Your task to perform on an android device: What's the news in Argentina? Image 0: 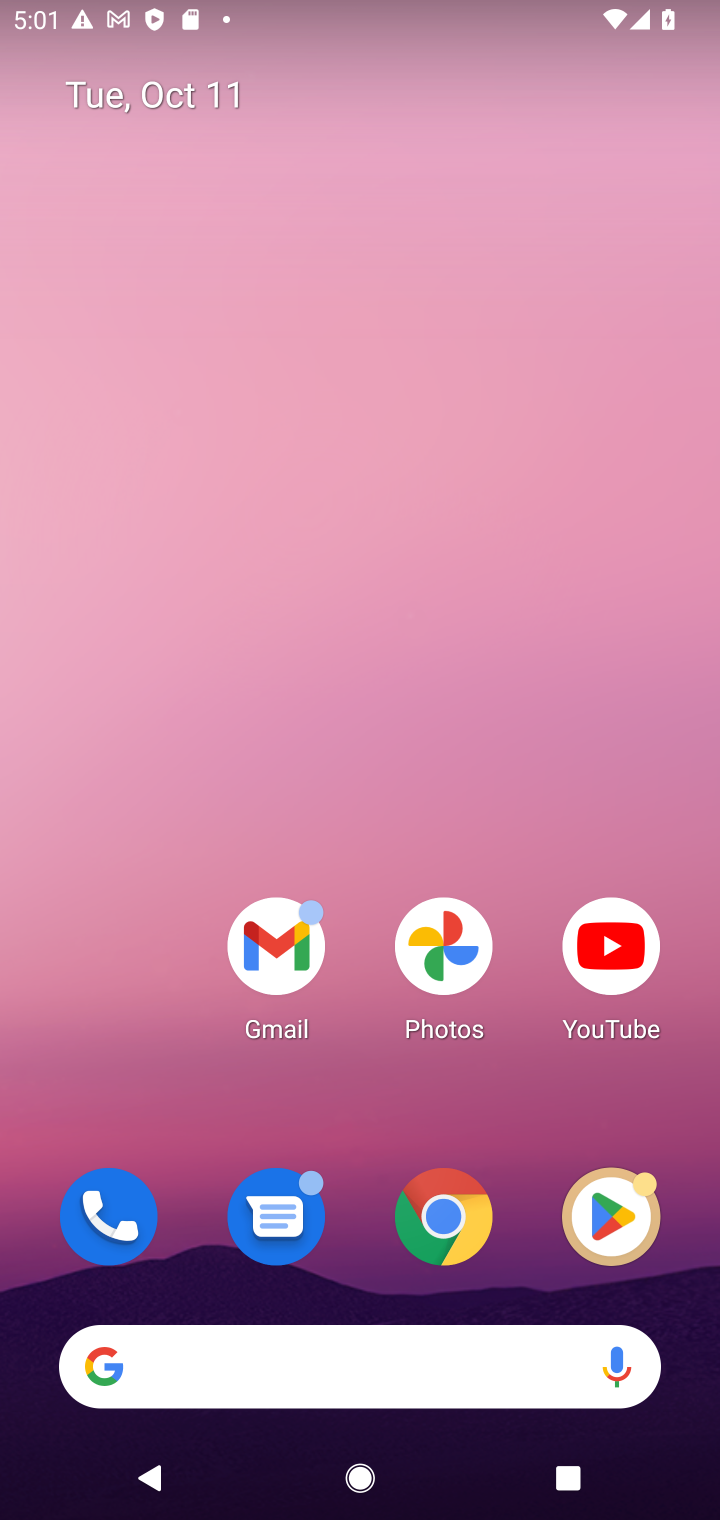
Step 0: click (447, 1214)
Your task to perform on an android device: What's the news in Argentina? Image 1: 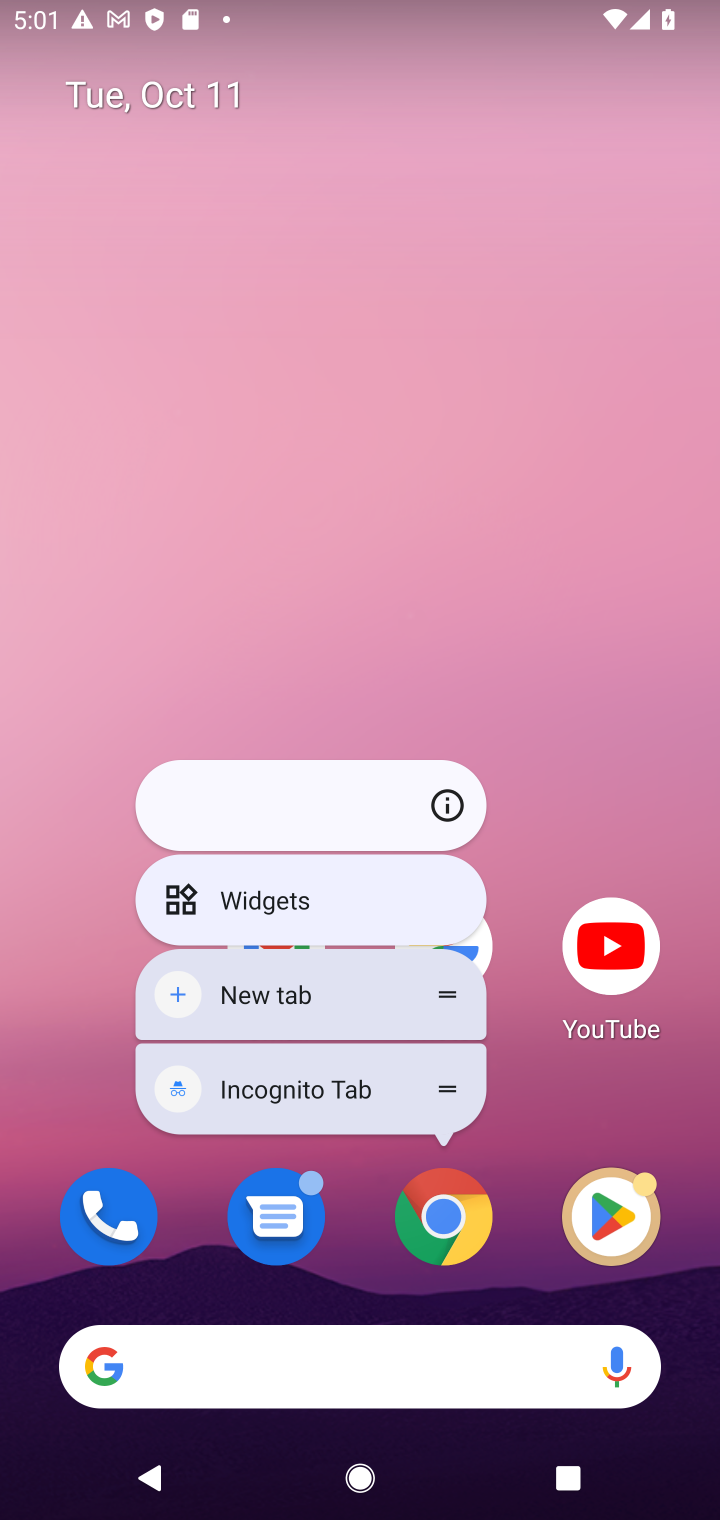
Step 1: click (447, 1214)
Your task to perform on an android device: What's the news in Argentina? Image 2: 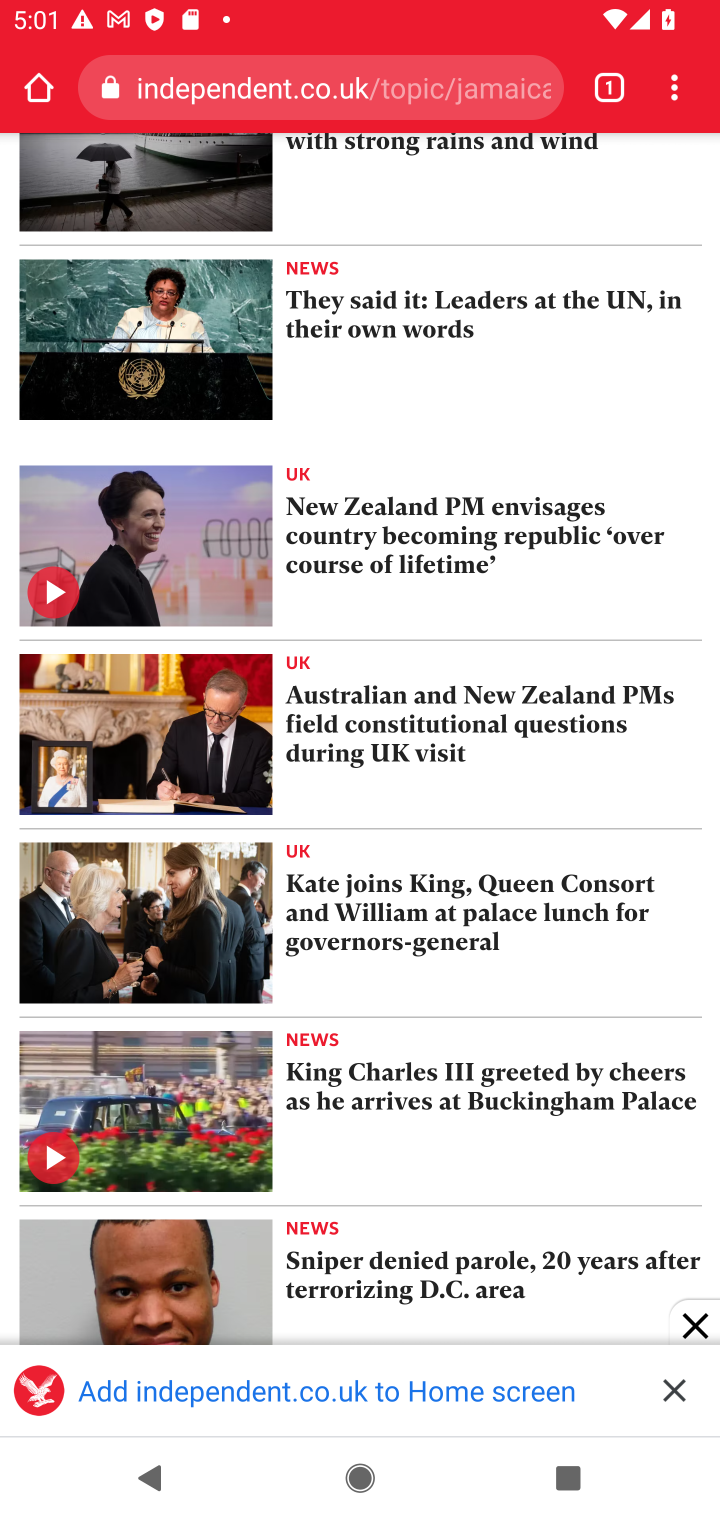
Step 2: click (394, 97)
Your task to perform on an android device: What's the news in Argentina? Image 3: 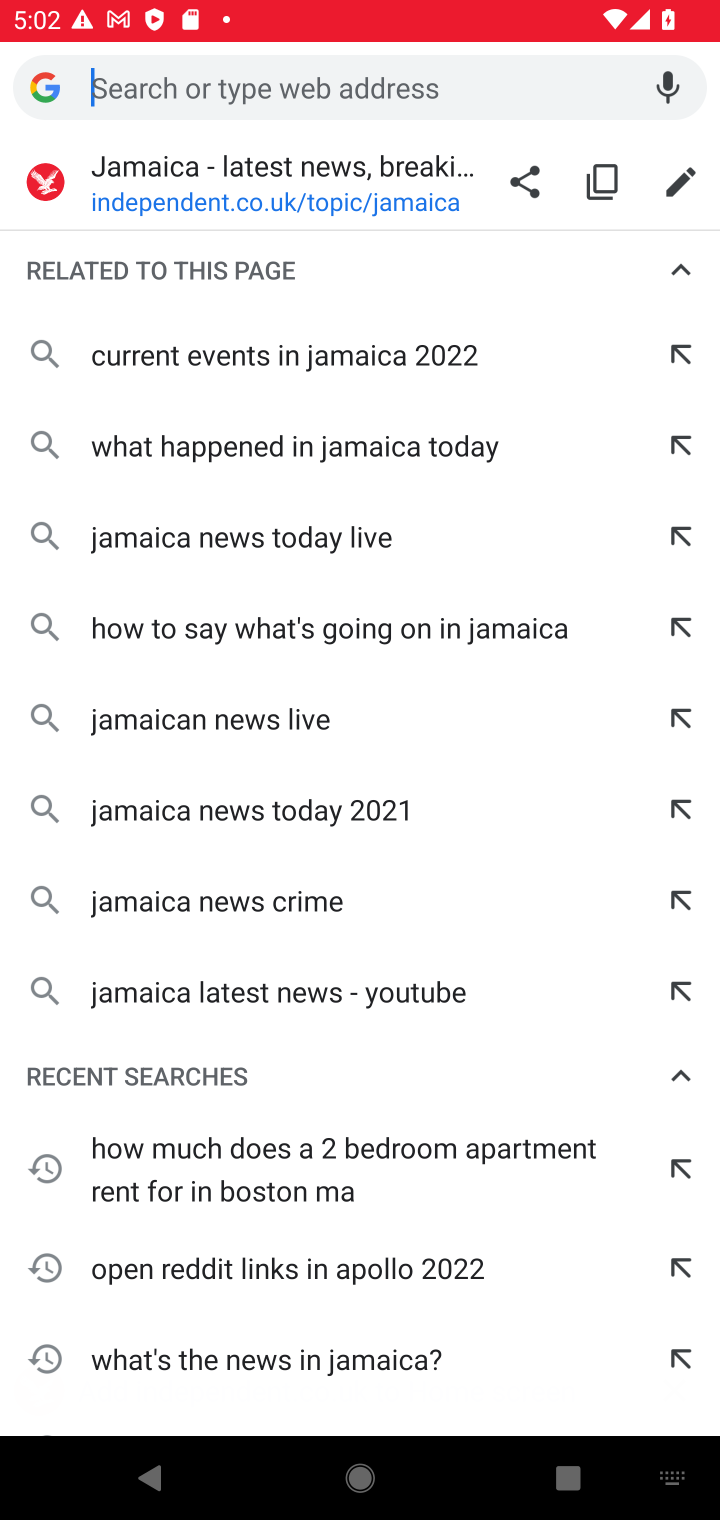
Step 3: type "What's the news in Argentina?"
Your task to perform on an android device: What's the news in Argentina? Image 4: 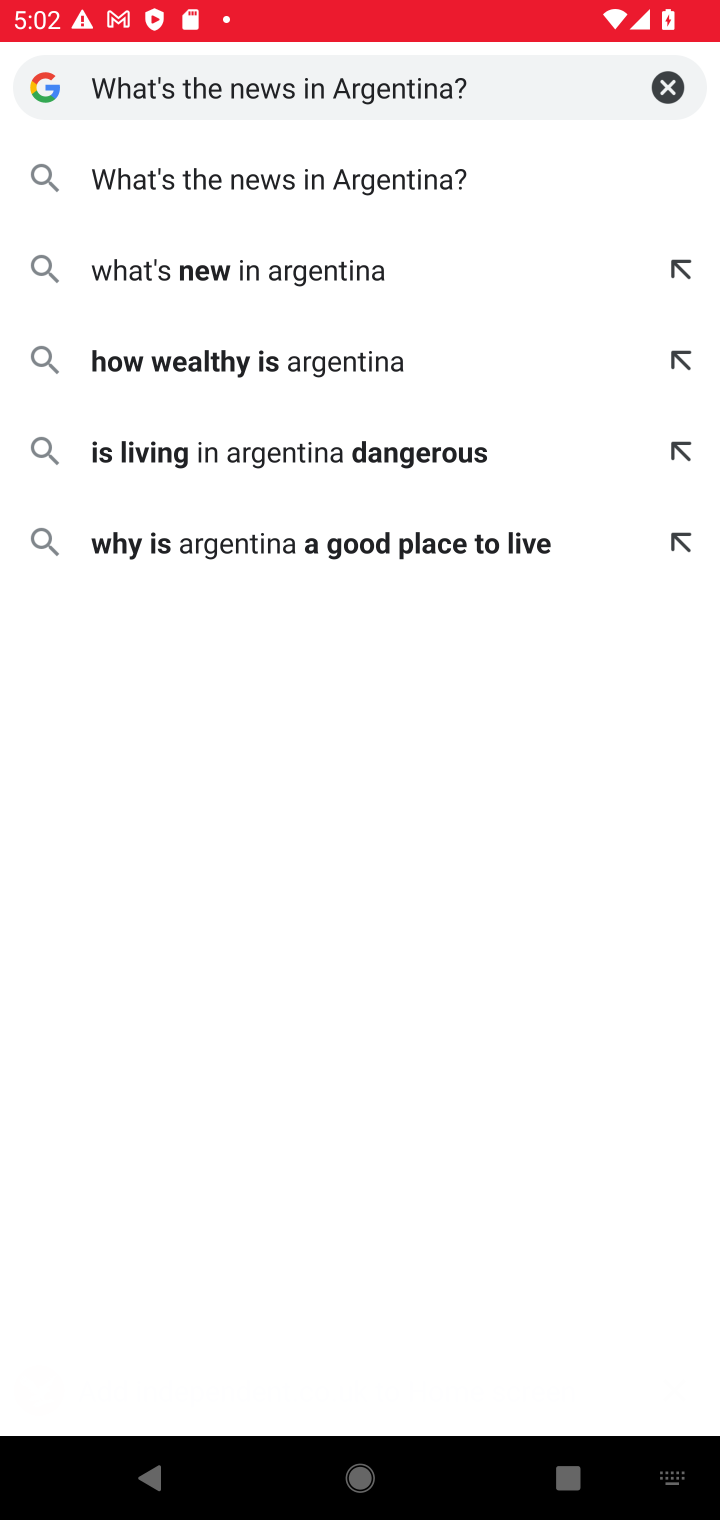
Step 4: click (290, 178)
Your task to perform on an android device: What's the news in Argentina? Image 5: 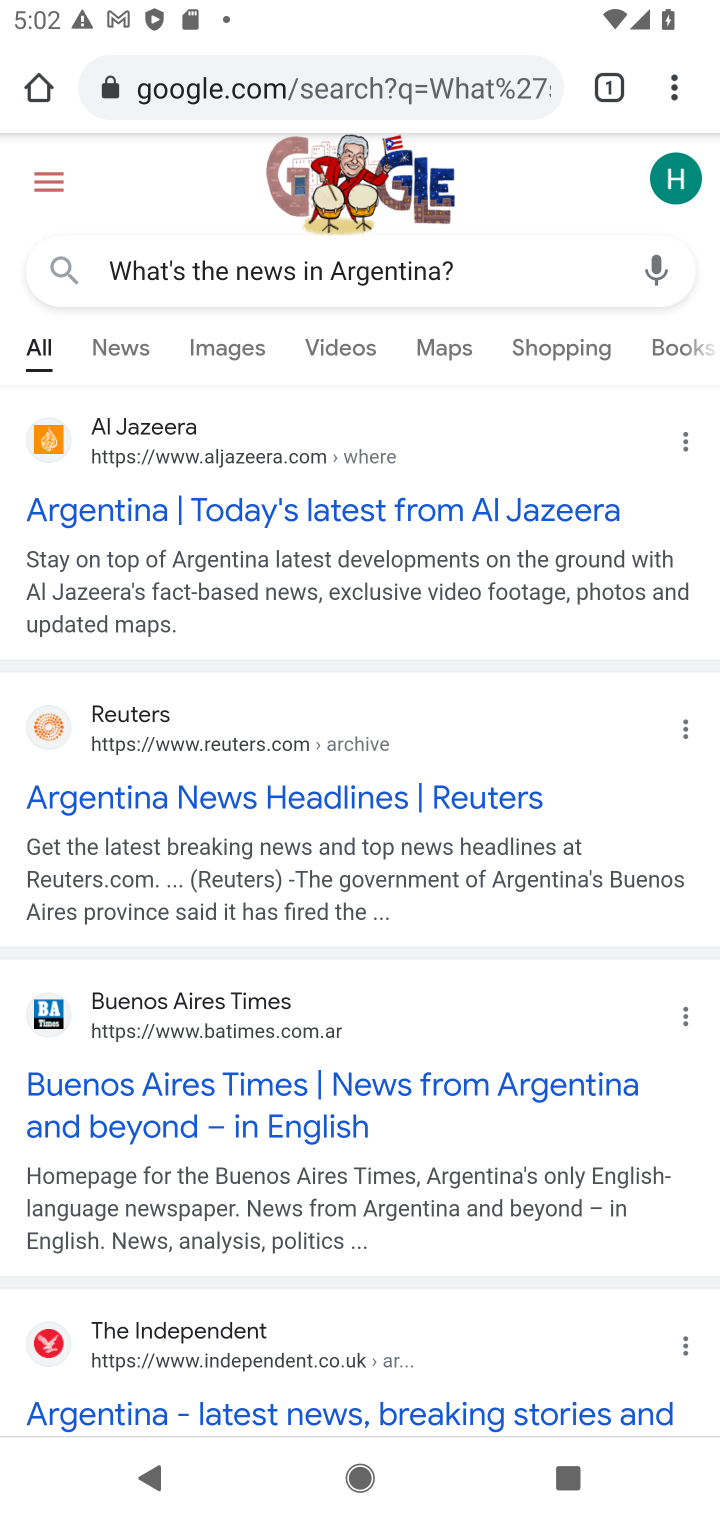
Step 5: click (151, 448)
Your task to perform on an android device: What's the news in Argentina? Image 6: 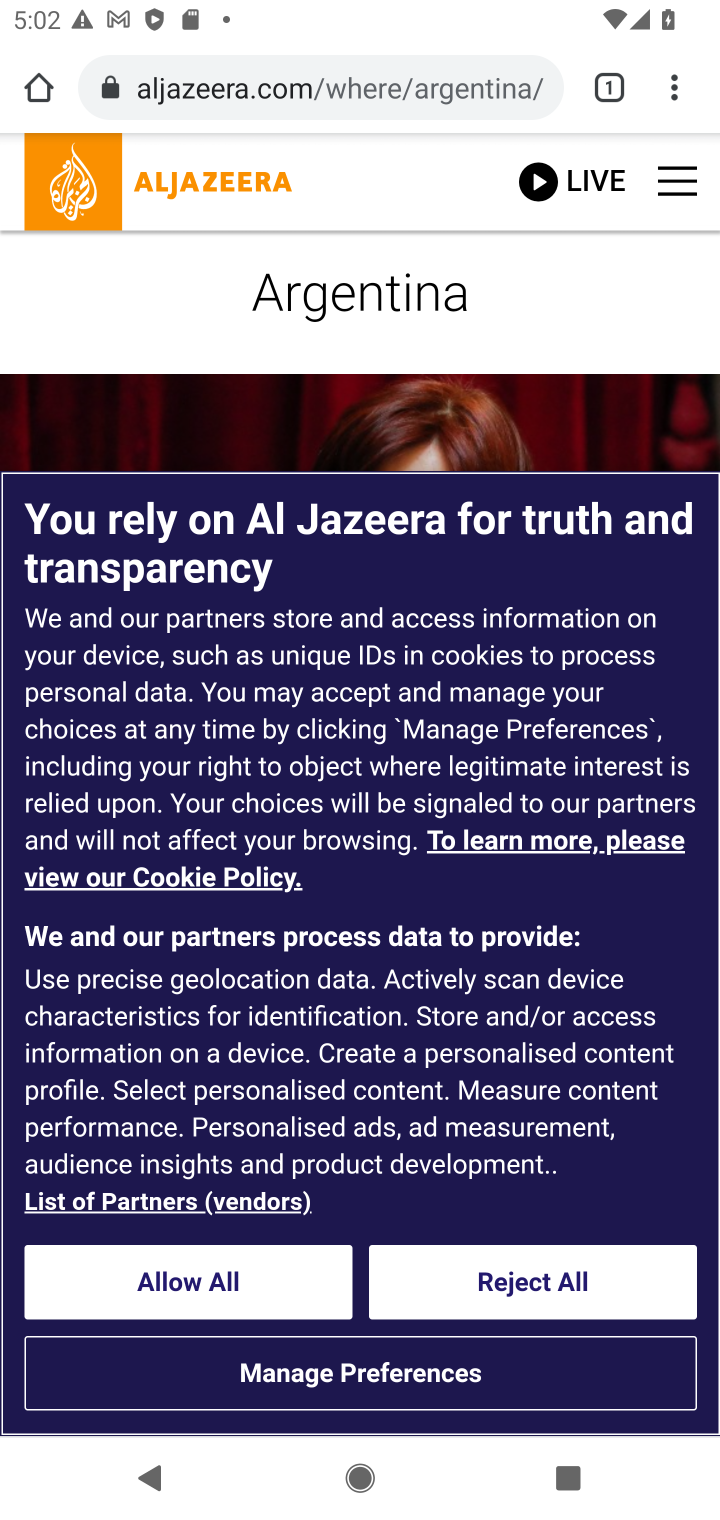
Step 6: drag from (355, 1252) to (406, 972)
Your task to perform on an android device: What's the news in Argentina? Image 7: 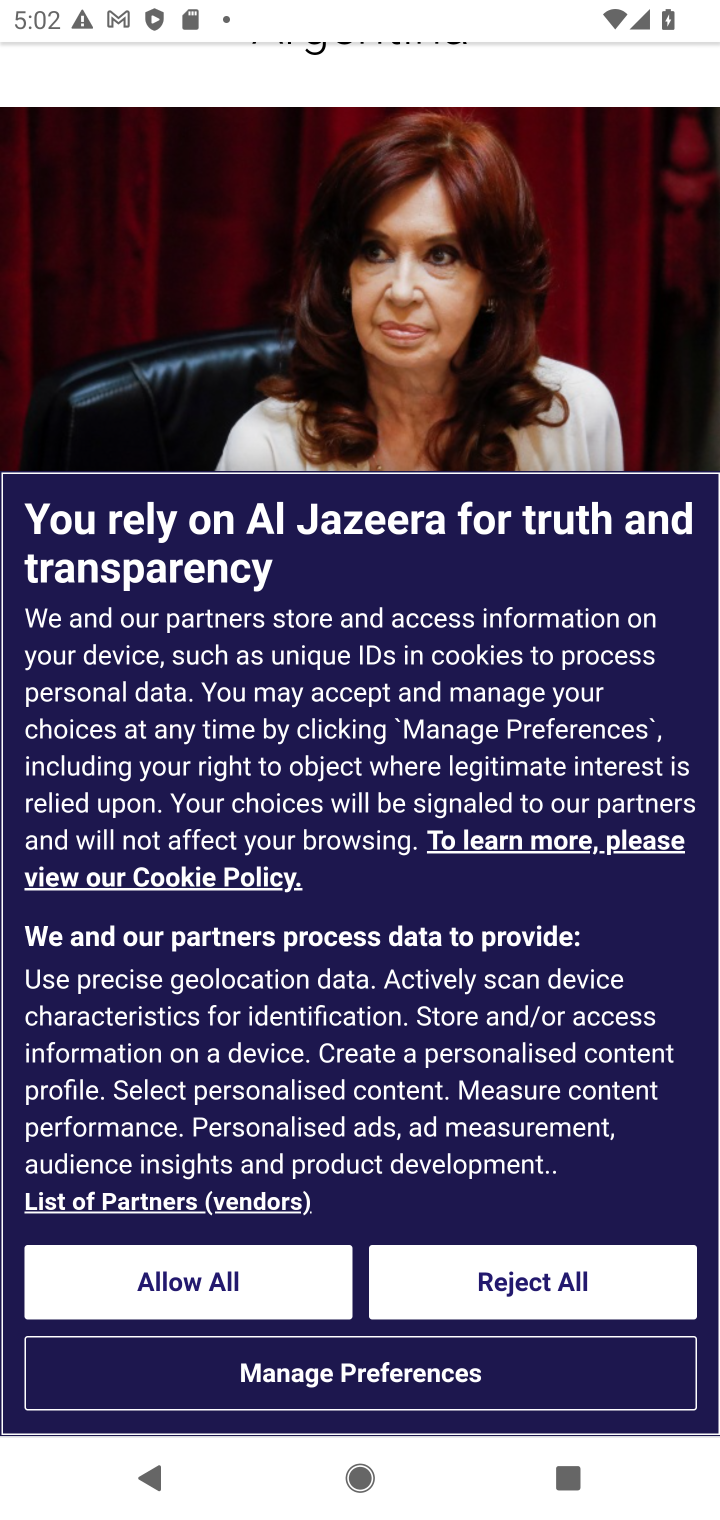
Step 7: click (215, 1279)
Your task to perform on an android device: What's the news in Argentina? Image 8: 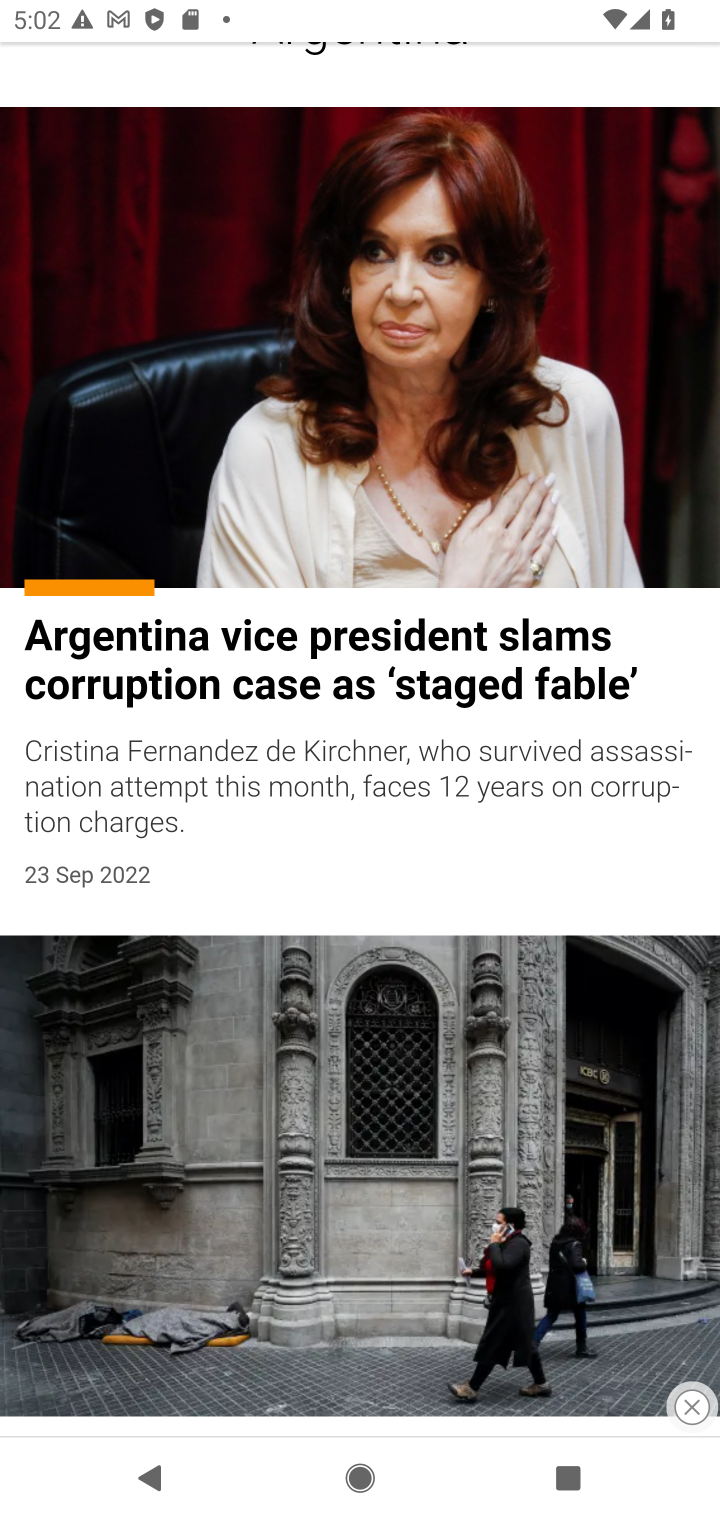
Step 8: drag from (382, 925) to (445, 706)
Your task to perform on an android device: What's the news in Argentina? Image 9: 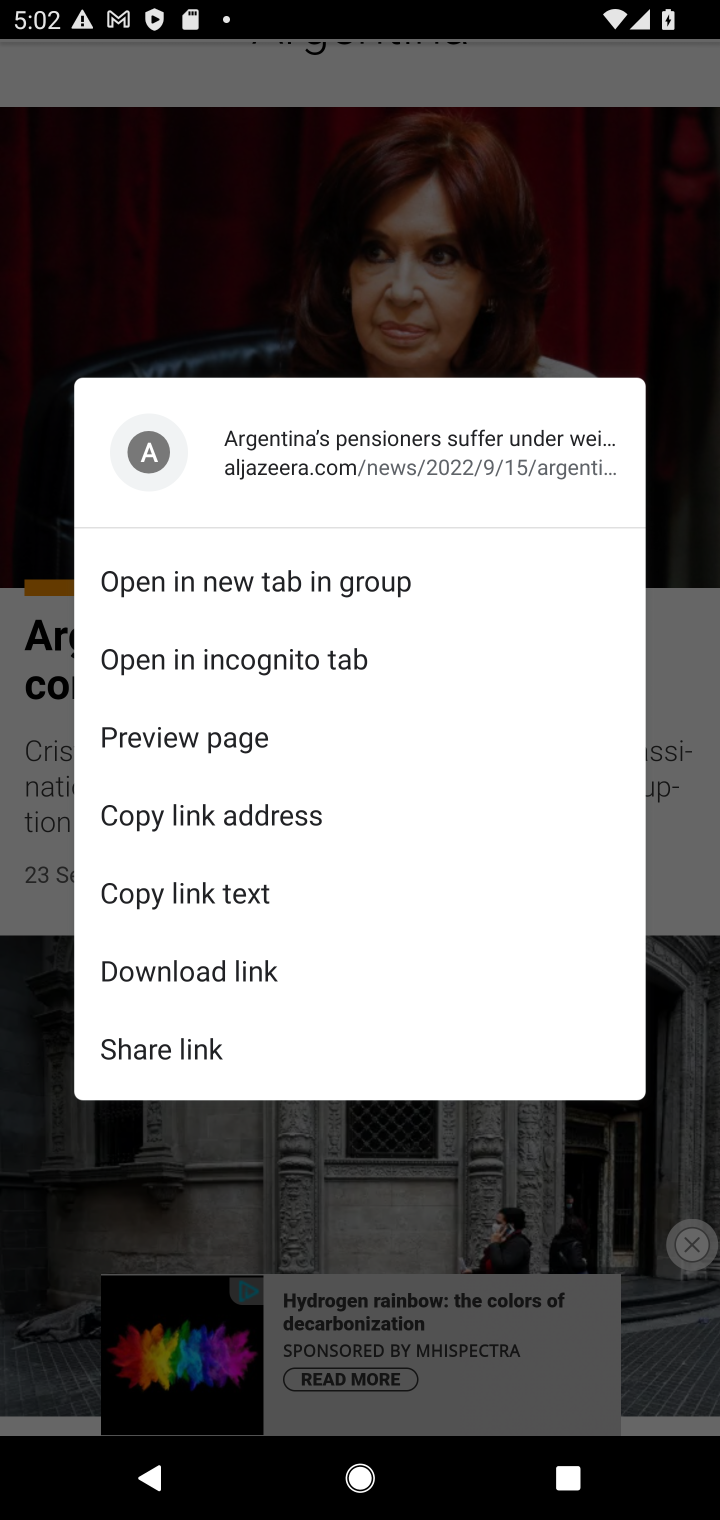
Step 9: click (350, 275)
Your task to perform on an android device: What's the news in Argentina? Image 10: 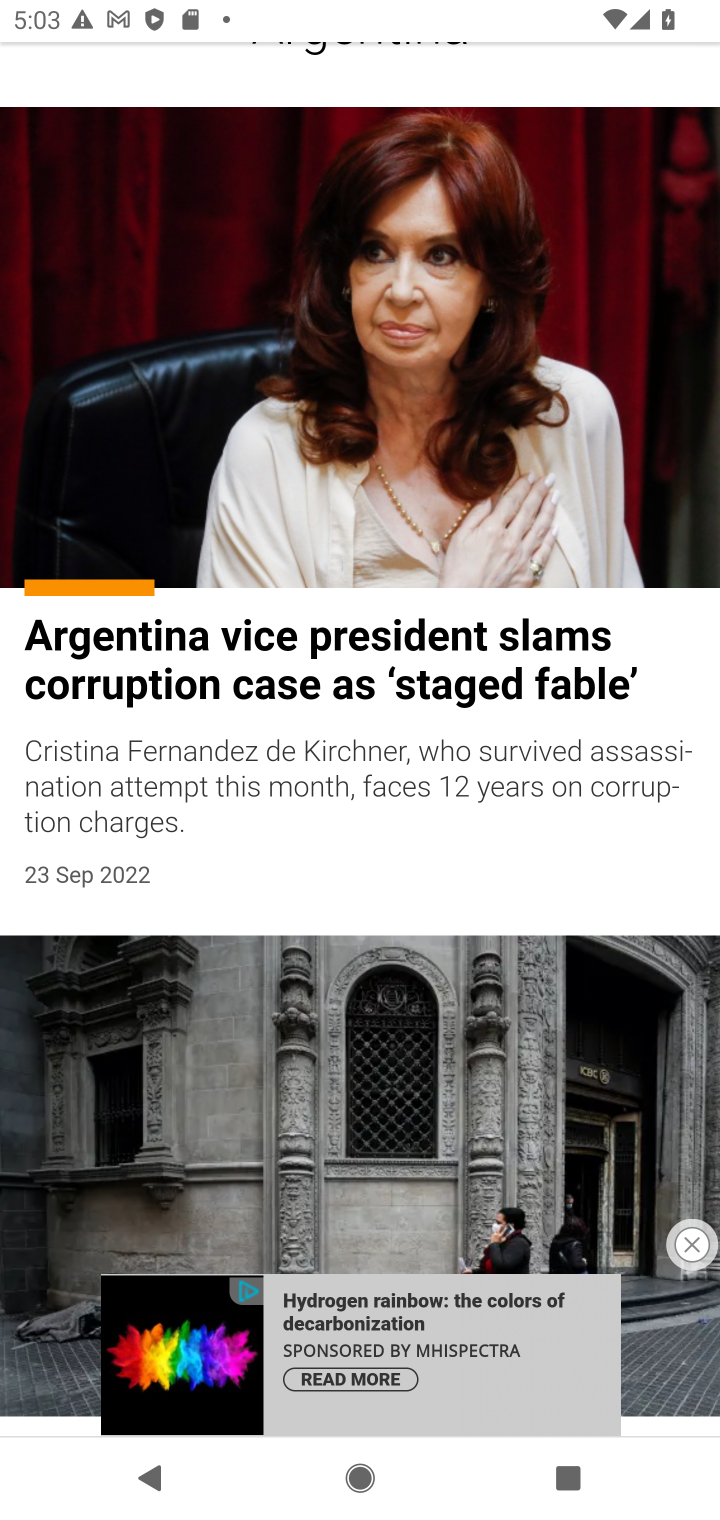
Step 10: drag from (376, 1093) to (455, 424)
Your task to perform on an android device: What's the news in Argentina? Image 11: 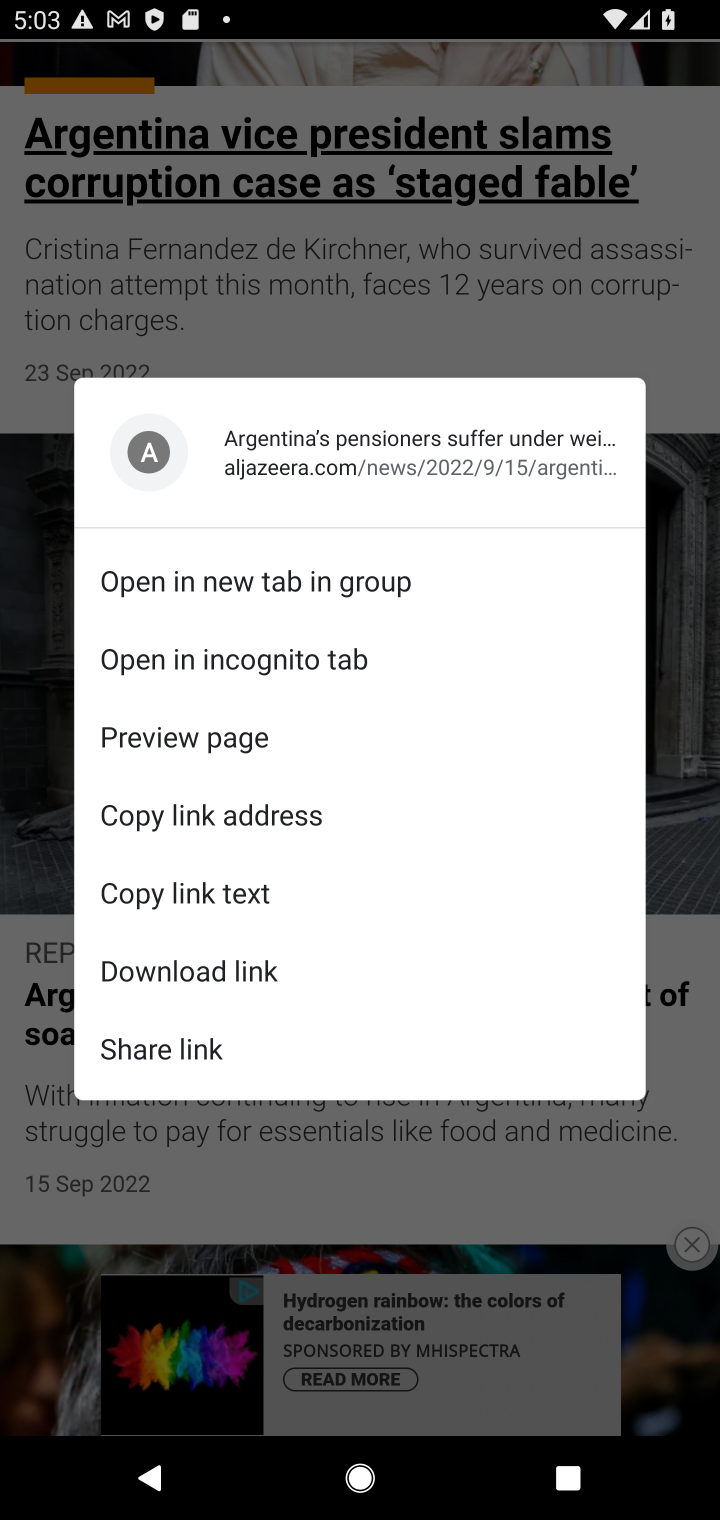
Step 11: click (704, 538)
Your task to perform on an android device: What's the news in Argentina? Image 12: 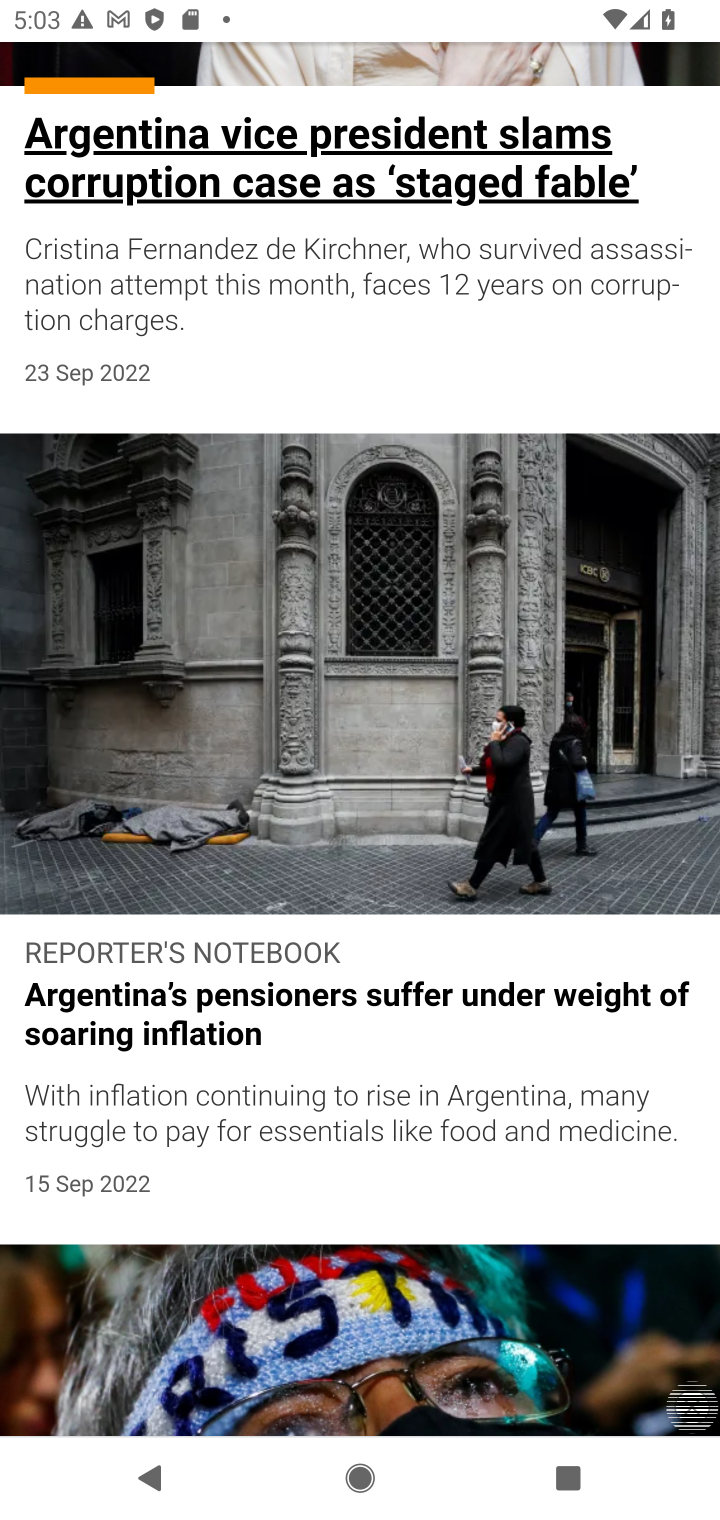
Step 12: task complete